Your task to perform on an android device: Go to internet settings Image 0: 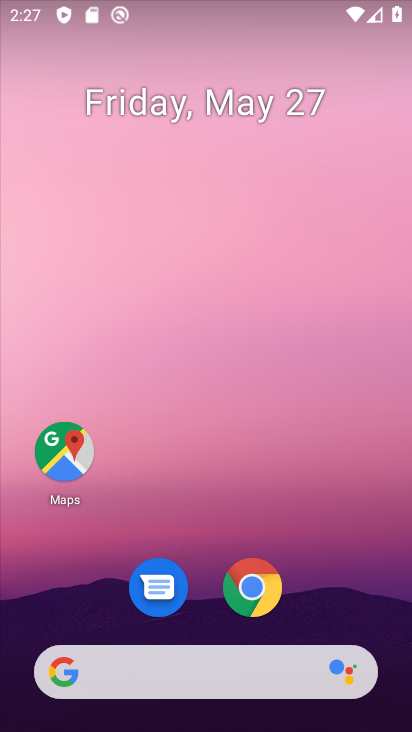
Step 0: press home button
Your task to perform on an android device: Go to internet settings Image 1: 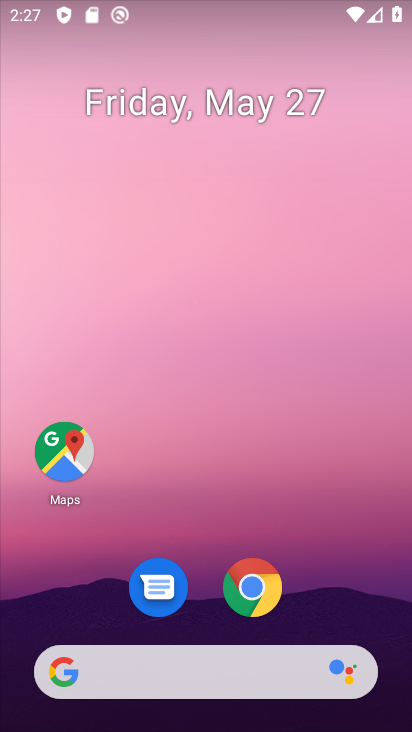
Step 1: drag from (314, 613) to (344, 249)
Your task to perform on an android device: Go to internet settings Image 2: 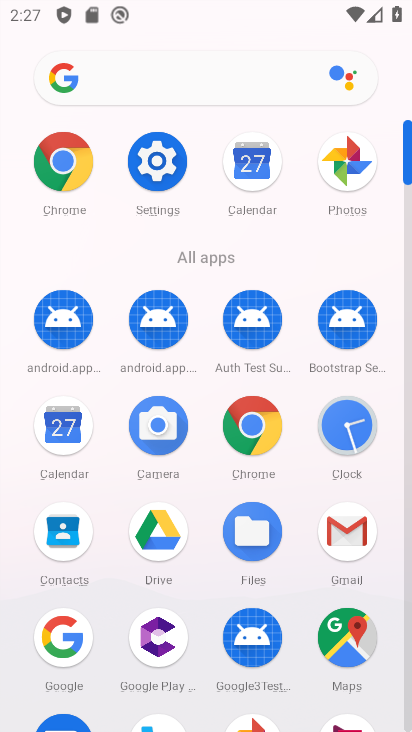
Step 2: click (164, 185)
Your task to perform on an android device: Go to internet settings Image 3: 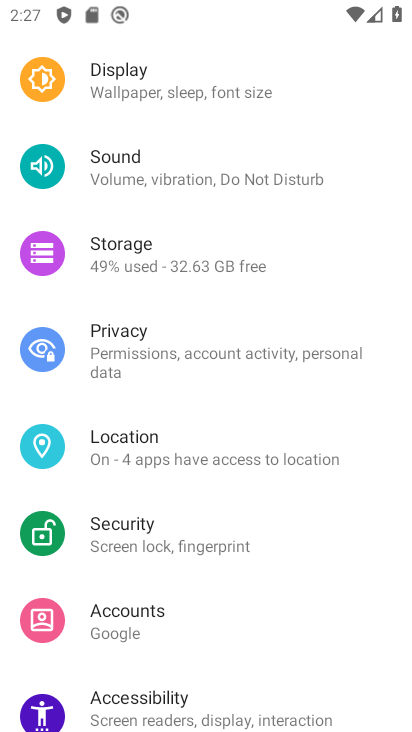
Step 3: drag from (347, 161) to (231, 566)
Your task to perform on an android device: Go to internet settings Image 4: 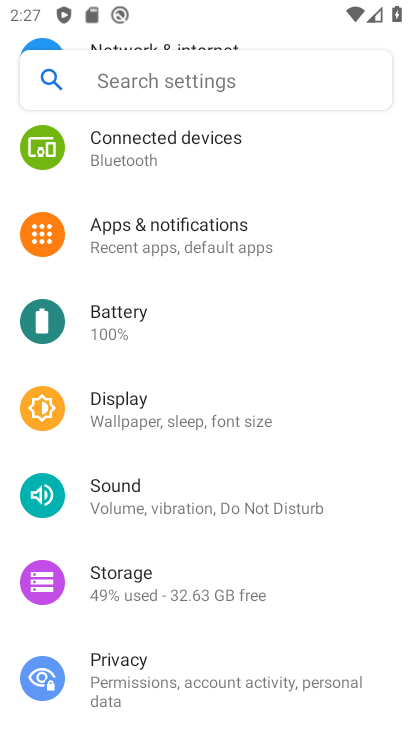
Step 4: drag from (283, 199) to (218, 616)
Your task to perform on an android device: Go to internet settings Image 5: 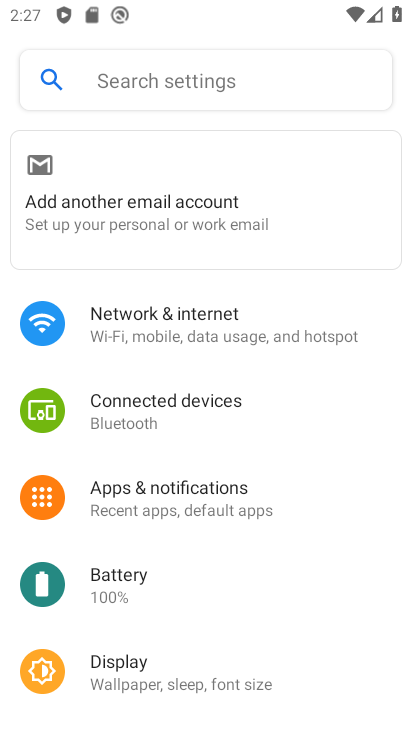
Step 5: click (143, 325)
Your task to perform on an android device: Go to internet settings Image 6: 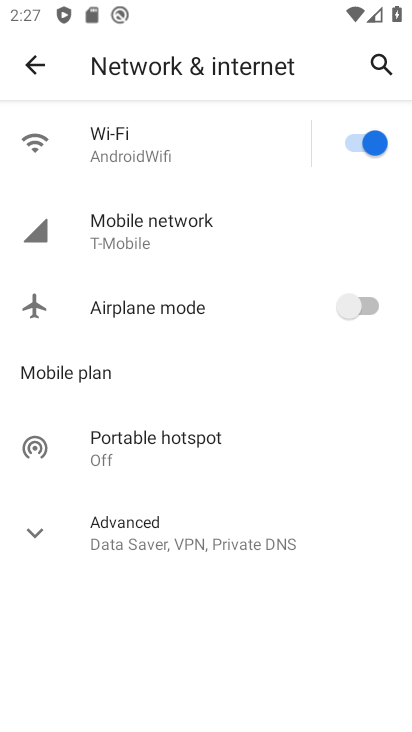
Step 6: task complete